Your task to perform on an android device: Open location settings Image 0: 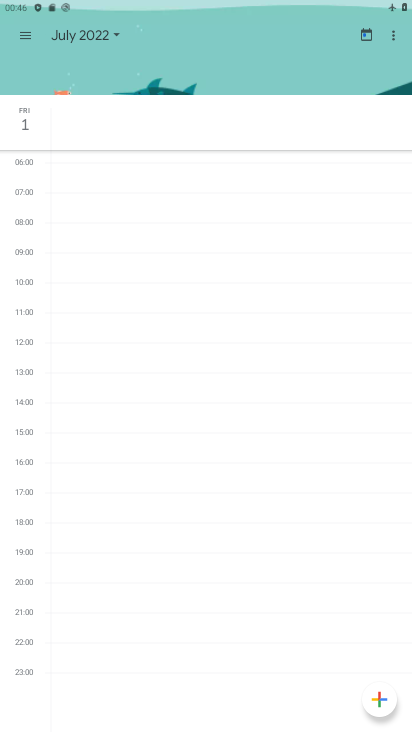
Step 0: press home button
Your task to perform on an android device: Open location settings Image 1: 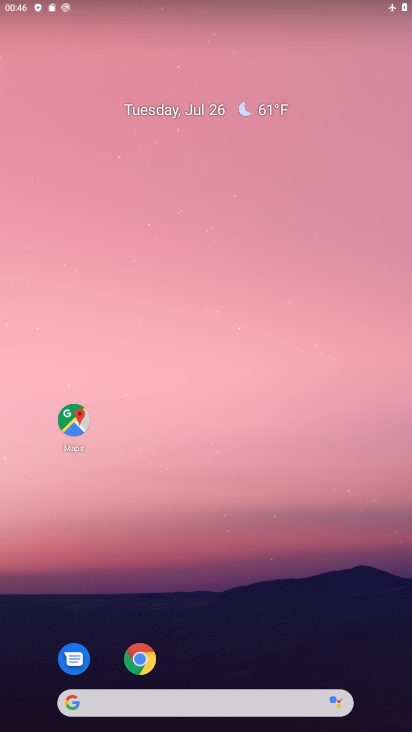
Step 1: drag from (277, 541) to (264, 112)
Your task to perform on an android device: Open location settings Image 2: 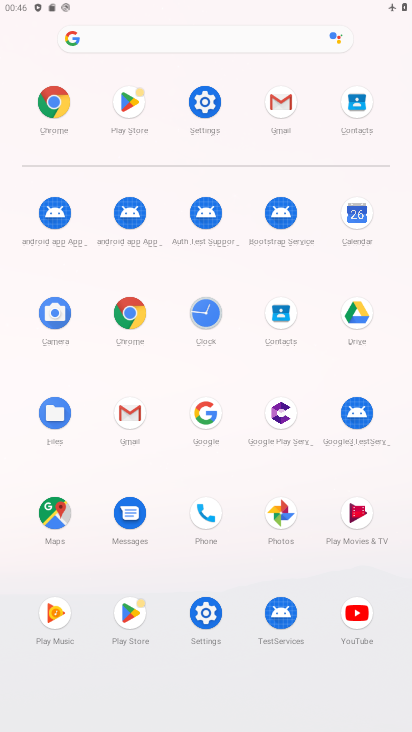
Step 2: click (212, 97)
Your task to perform on an android device: Open location settings Image 3: 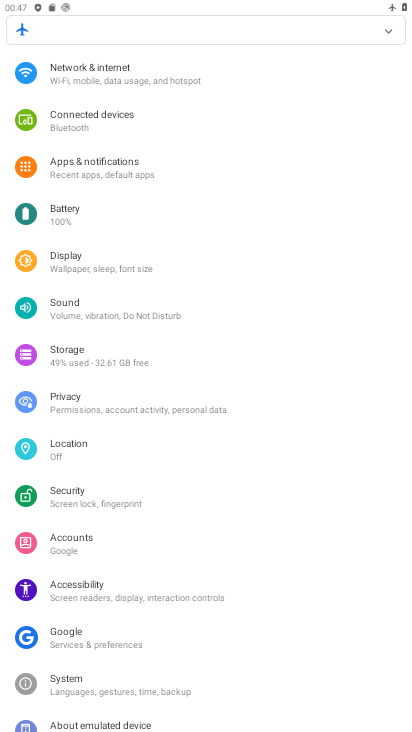
Step 3: click (99, 450)
Your task to perform on an android device: Open location settings Image 4: 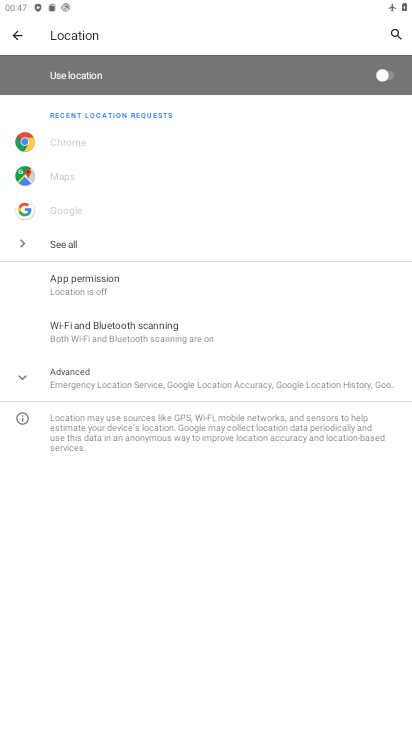
Step 4: task complete